Your task to perform on an android device: Open privacy settings Image 0: 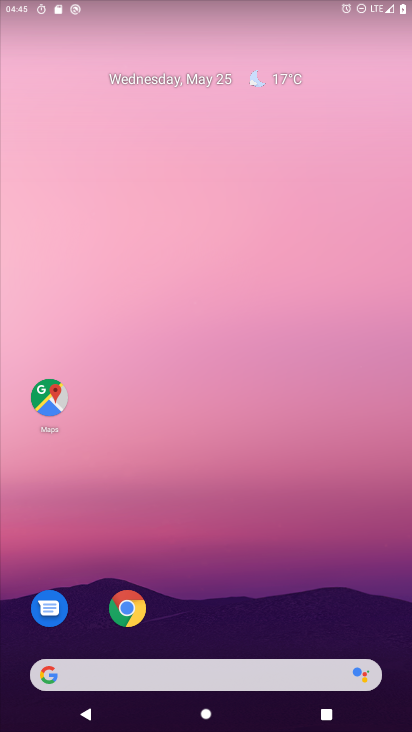
Step 0: drag from (271, 492) to (254, 76)
Your task to perform on an android device: Open privacy settings Image 1: 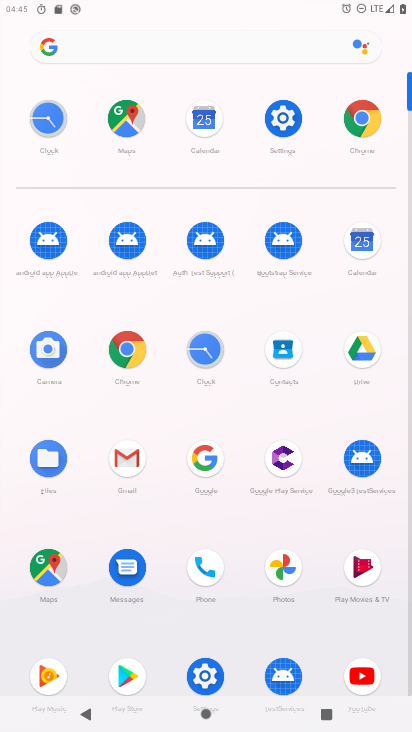
Step 1: click (297, 127)
Your task to perform on an android device: Open privacy settings Image 2: 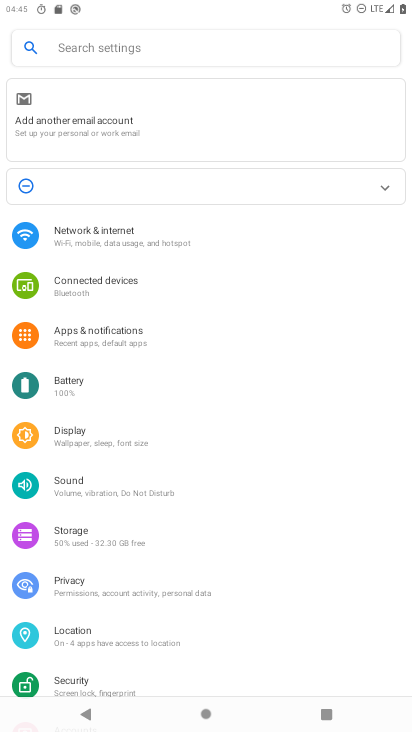
Step 2: drag from (131, 622) to (149, 426)
Your task to perform on an android device: Open privacy settings Image 3: 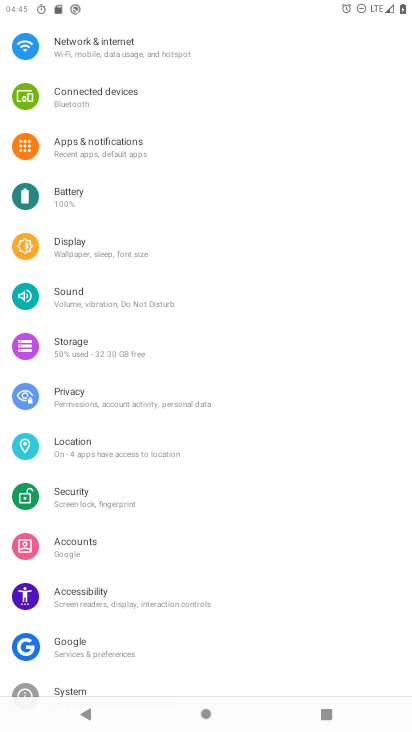
Step 3: click (87, 401)
Your task to perform on an android device: Open privacy settings Image 4: 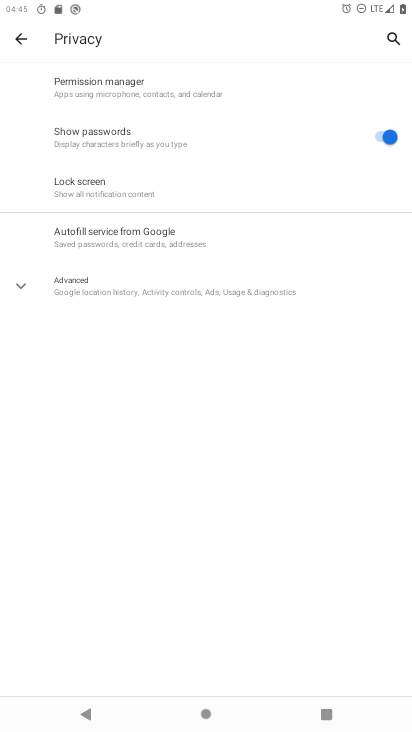
Step 4: task complete